Your task to perform on an android device: View the shopping cart on ebay.com. Add lg ultragear to the cart on ebay.com Image 0: 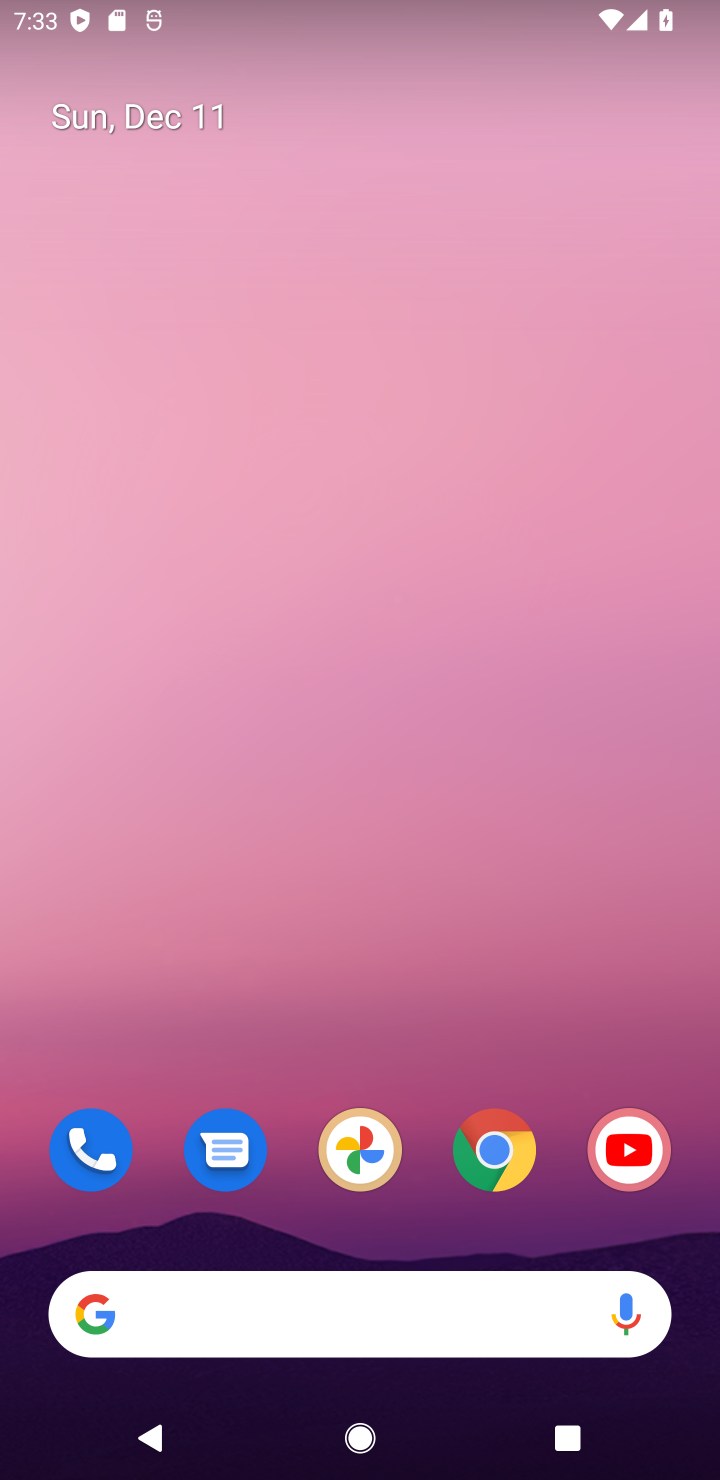
Step 0: click (489, 1158)
Your task to perform on an android device: View the shopping cart on ebay.com. Add lg ultragear to the cart on ebay.com Image 1: 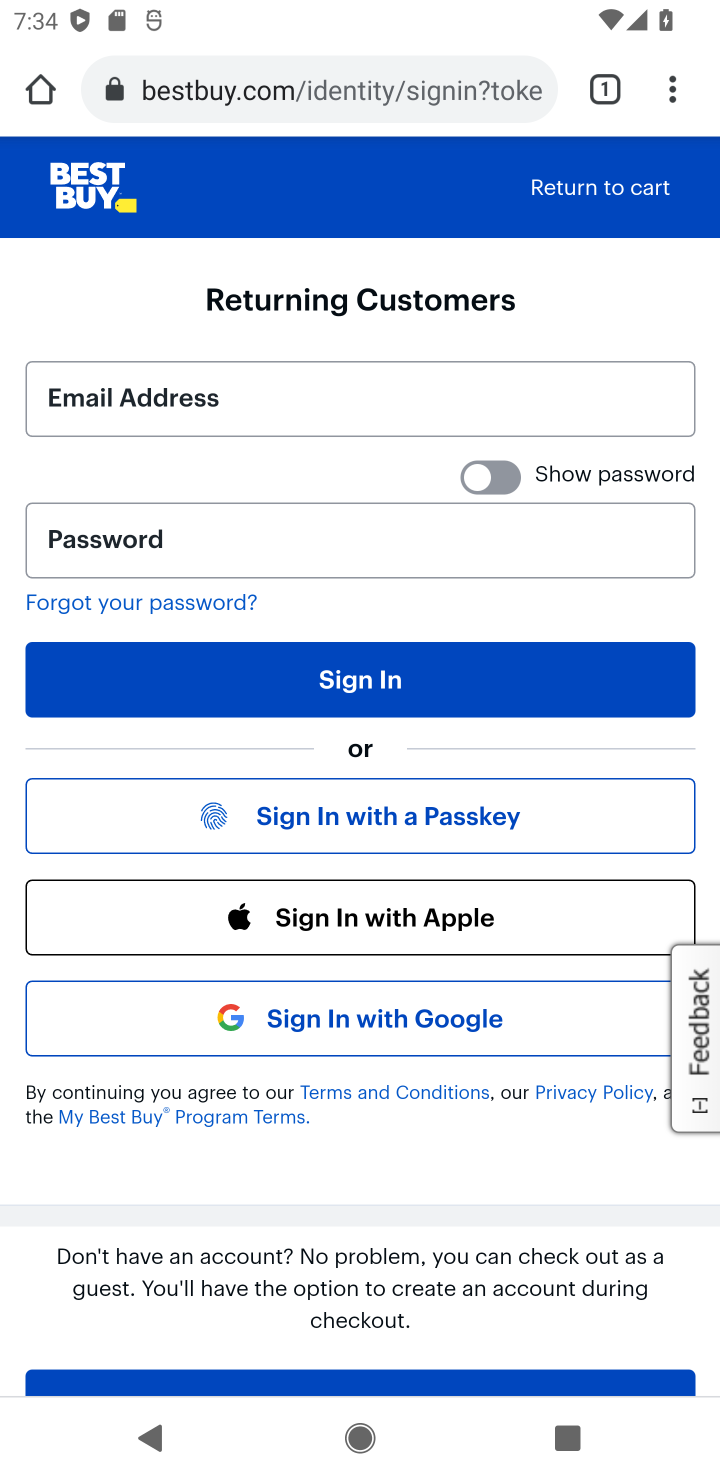
Step 1: click (347, 90)
Your task to perform on an android device: View the shopping cart on ebay.com. Add lg ultragear to the cart on ebay.com Image 2: 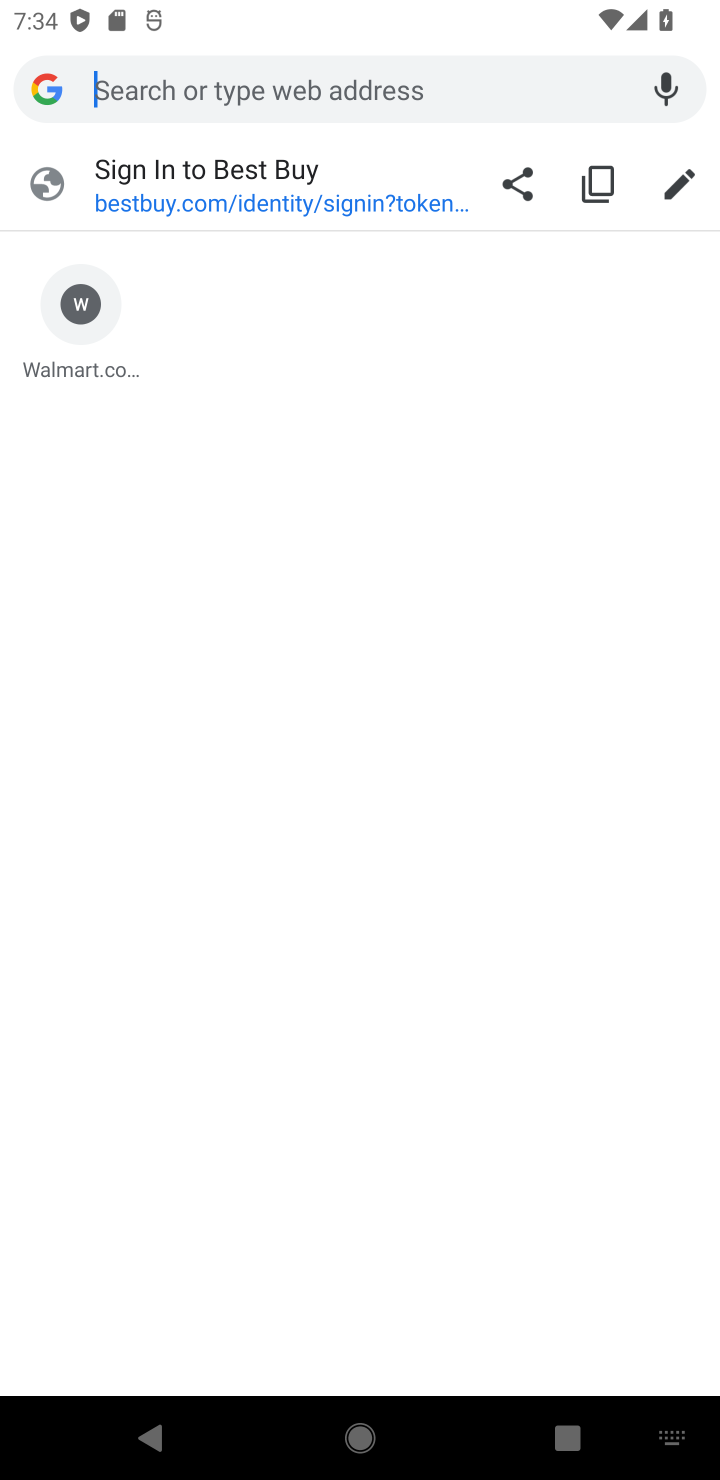
Step 2: type "ebay.com"
Your task to perform on an android device: View the shopping cart on ebay.com. Add lg ultragear to the cart on ebay.com Image 3: 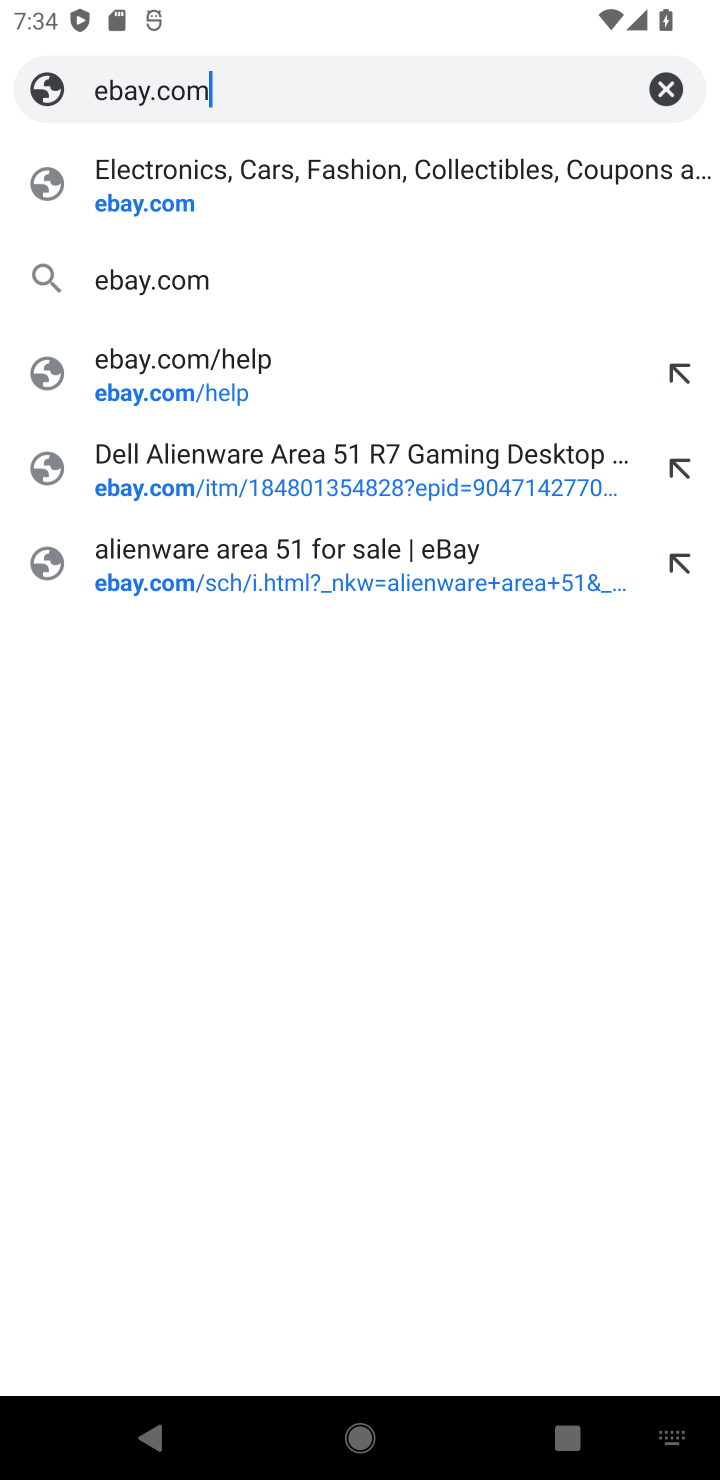
Step 3: click (191, 277)
Your task to perform on an android device: View the shopping cart on ebay.com. Add lg ultragear to the cart on ebay.com Image 4: 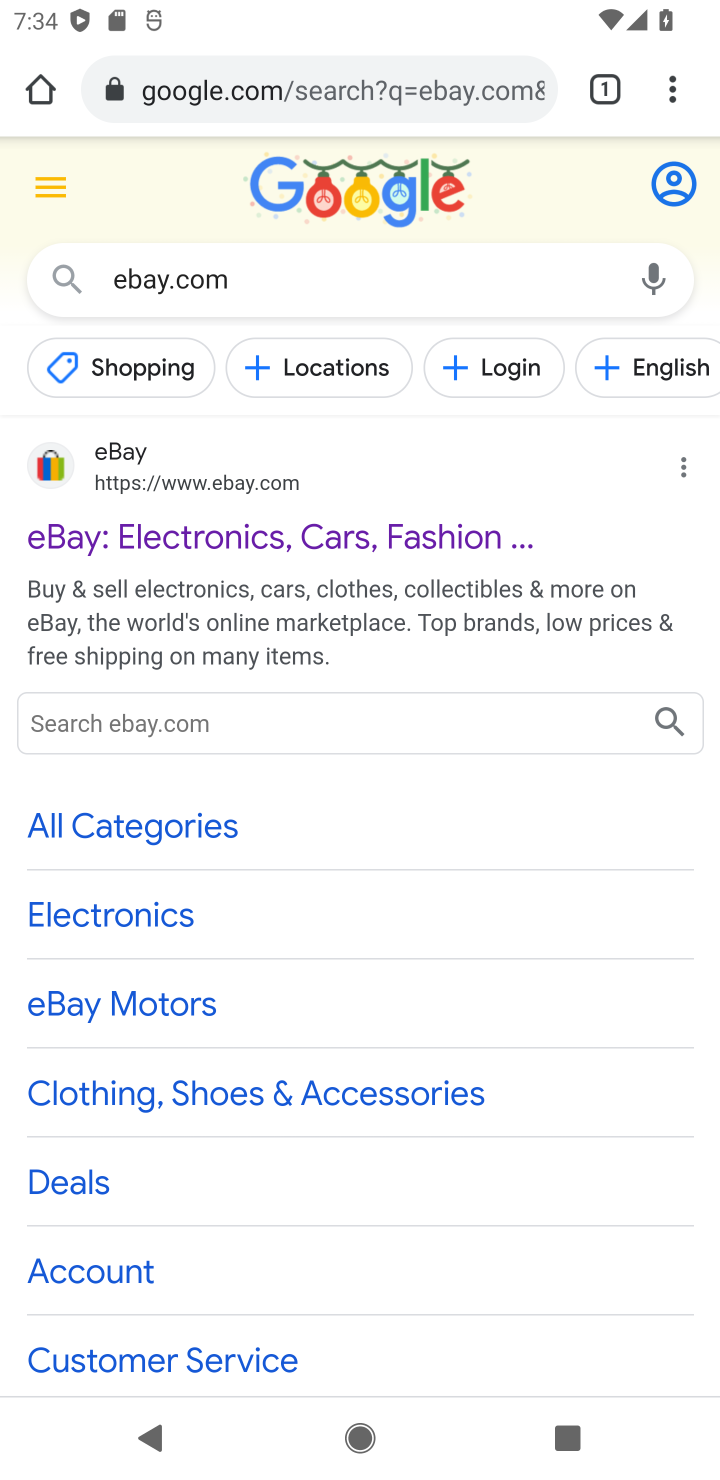
Step 4: click (172, 539)
Your task to perform on an android device: View the shopping cart on ebay.com. Add lg ultragear to the cart on ebay.com Image 5: 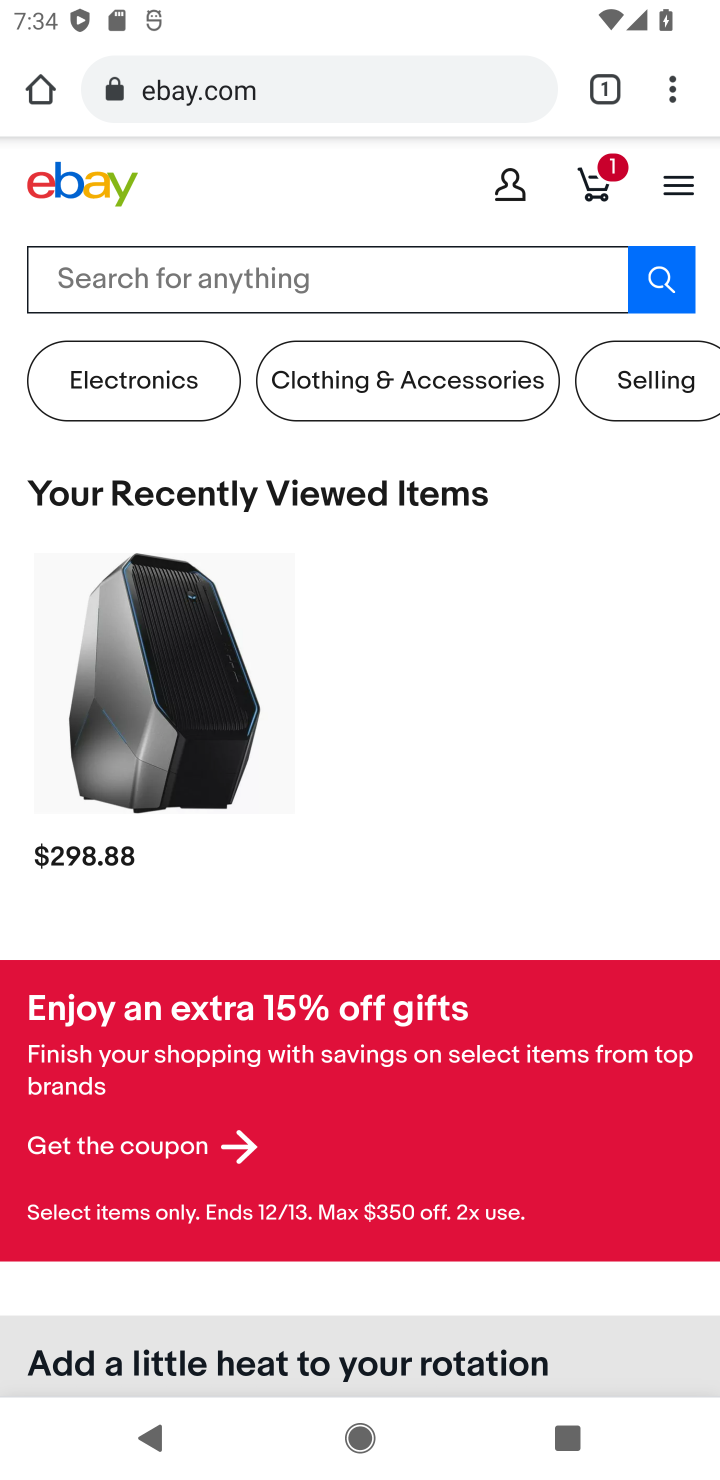
Step 5: click (590, 188)
Your task to perform on an android device: View the shopping cart on ebay.com. Add lg ultragear to the cart on ebay.com Image 6: 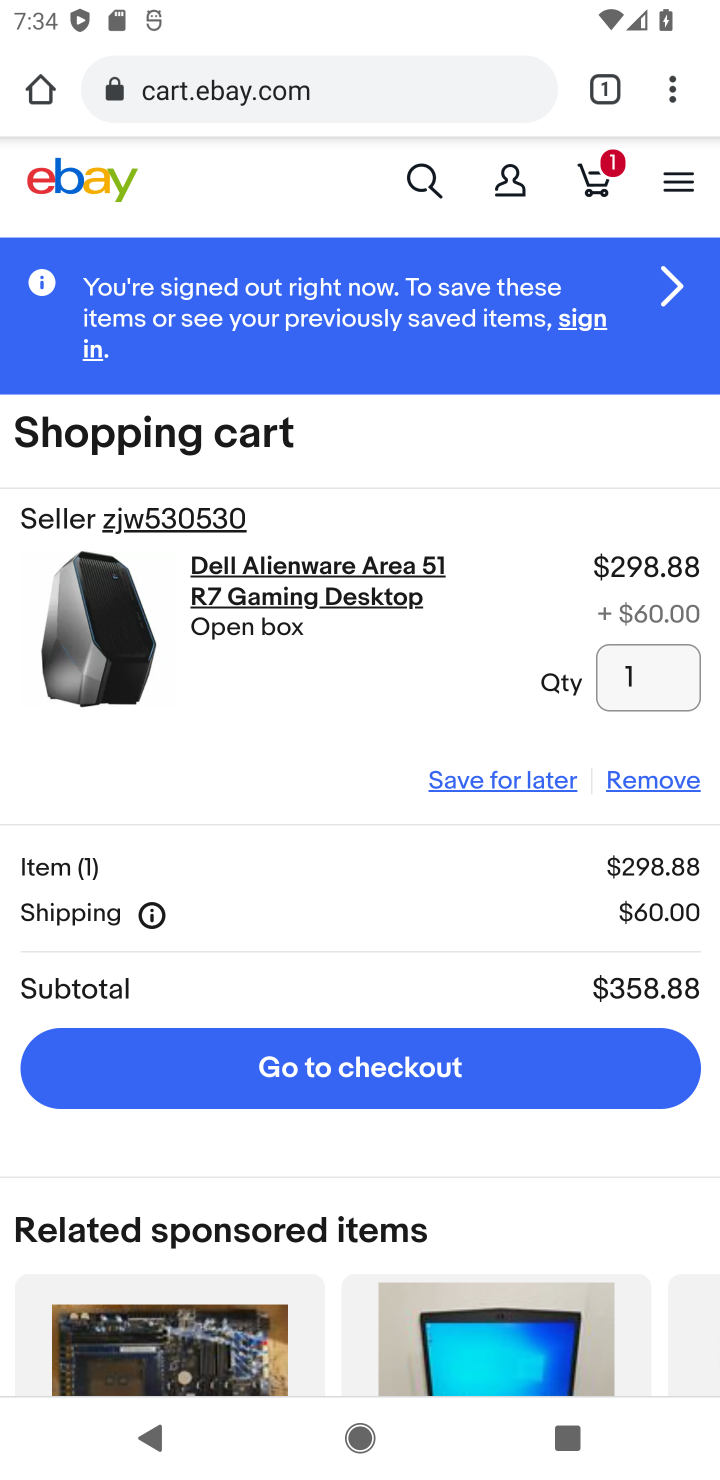
Step 6: click (417, 180)
Your task to perform on an android device: View the shopping cart on ebay.com. Add lg ultragear to the cart on ebay.com Image 7: 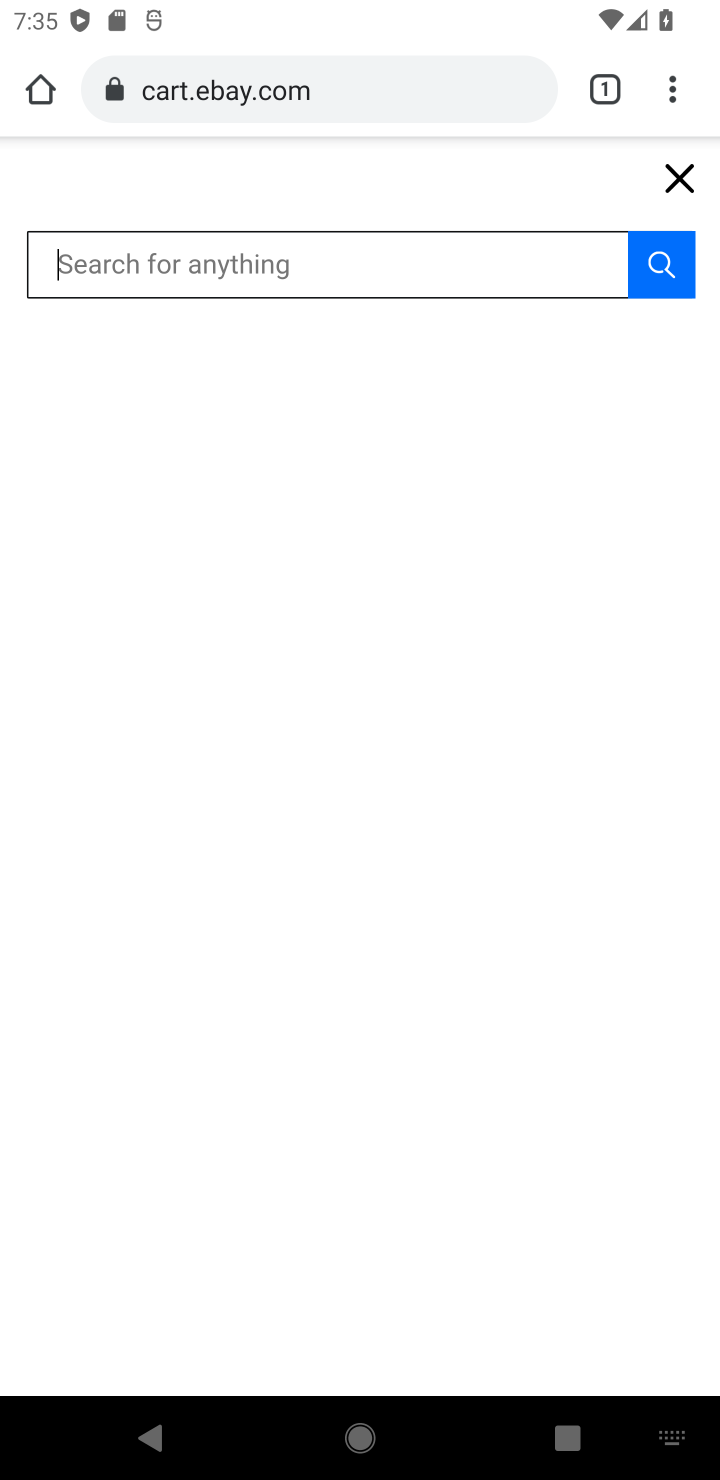
Step 7: type "lg ultragear"
Your task to perform on an android device: View the shopping cart on ebay.com. Add lg ultragear to the cart on ebay.com Image 8: 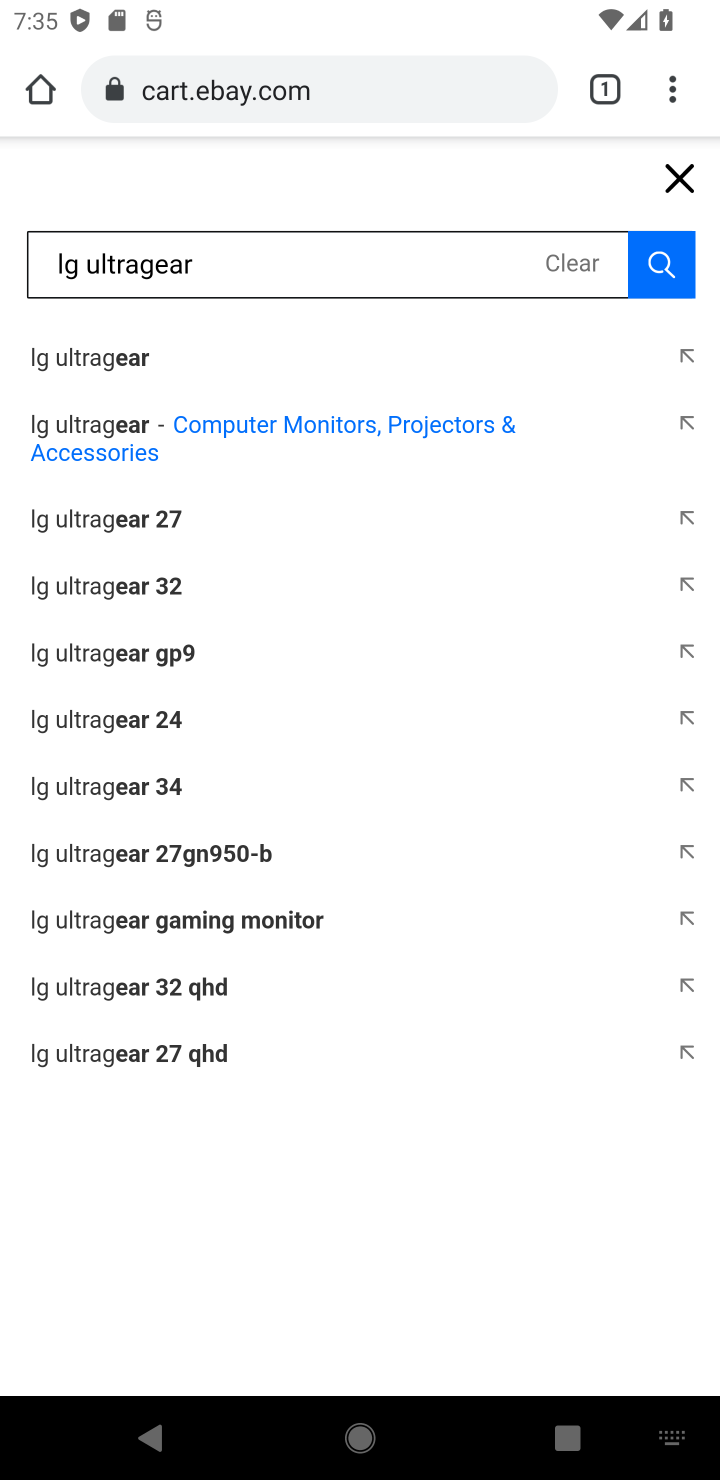
Step 8: click (95, 366)
Your task to perform on an android device: View the shopping cart on ebay.com. Add lg ultragear to the cart on ebay.com Image 9: 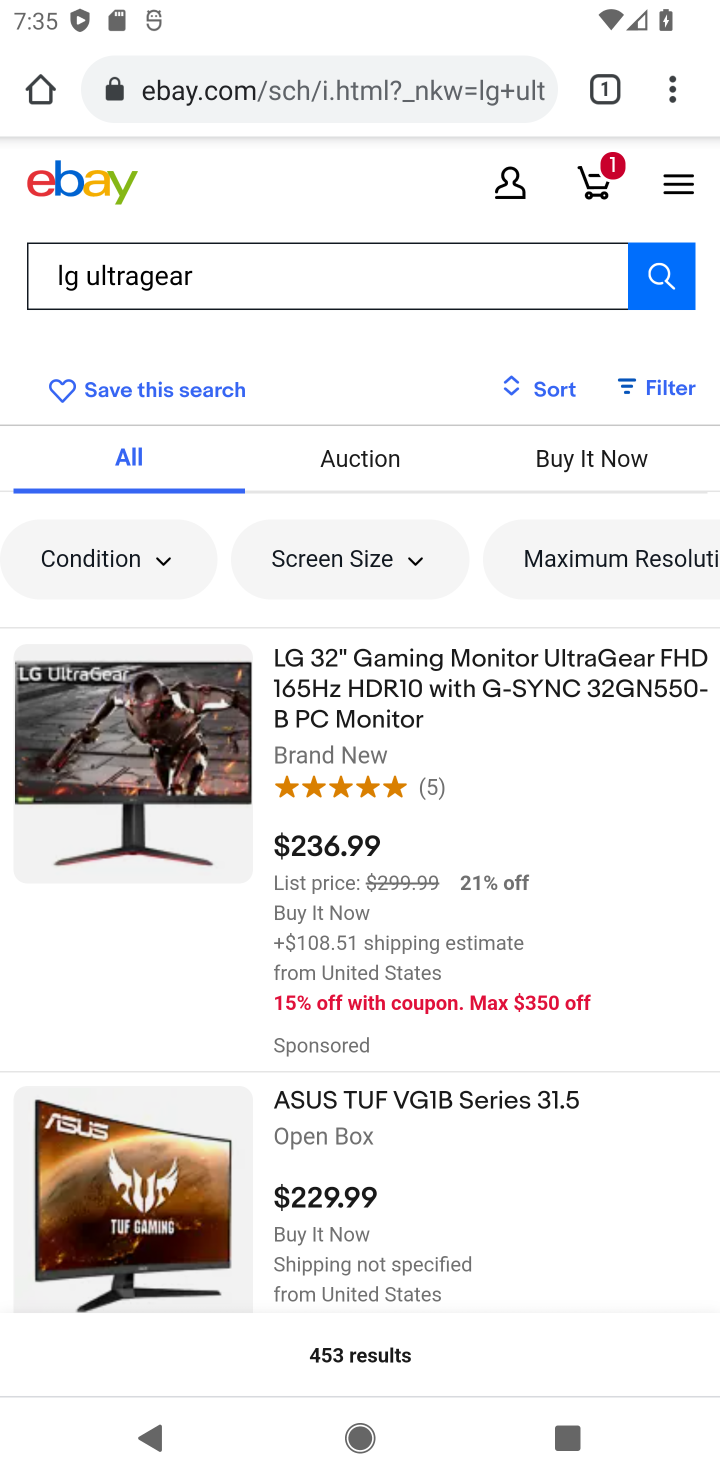
Step 9: click (398, 702)
Your task to perform on an android device: View the shopping cart on ebay.com. Add lg ultragear to the cart on ebay.com Image 10: 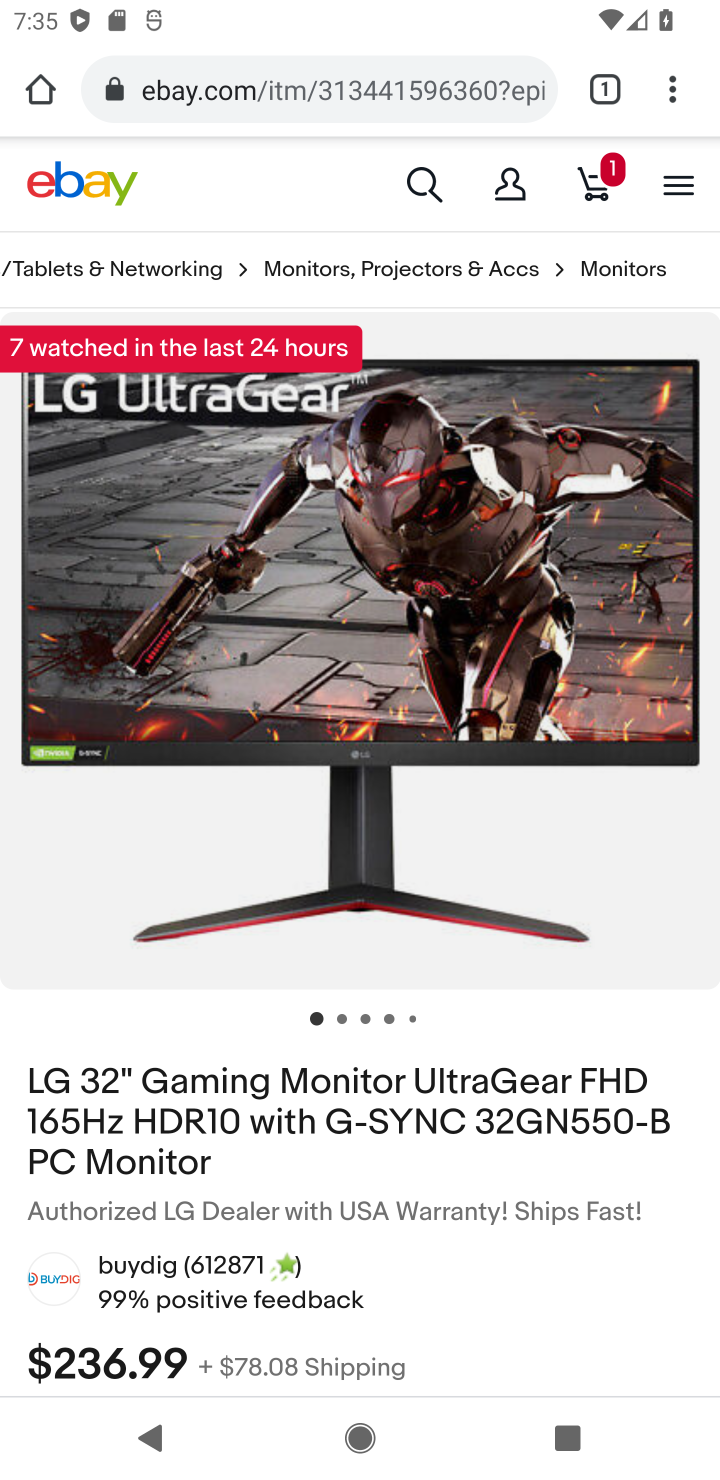
Step 10: drag from (438, 1245) to (468, 676)
Your task to perform on an android device: View the shopping cart on ebay.com. Add lg ultragear to the cart on ebay.com Image 11: 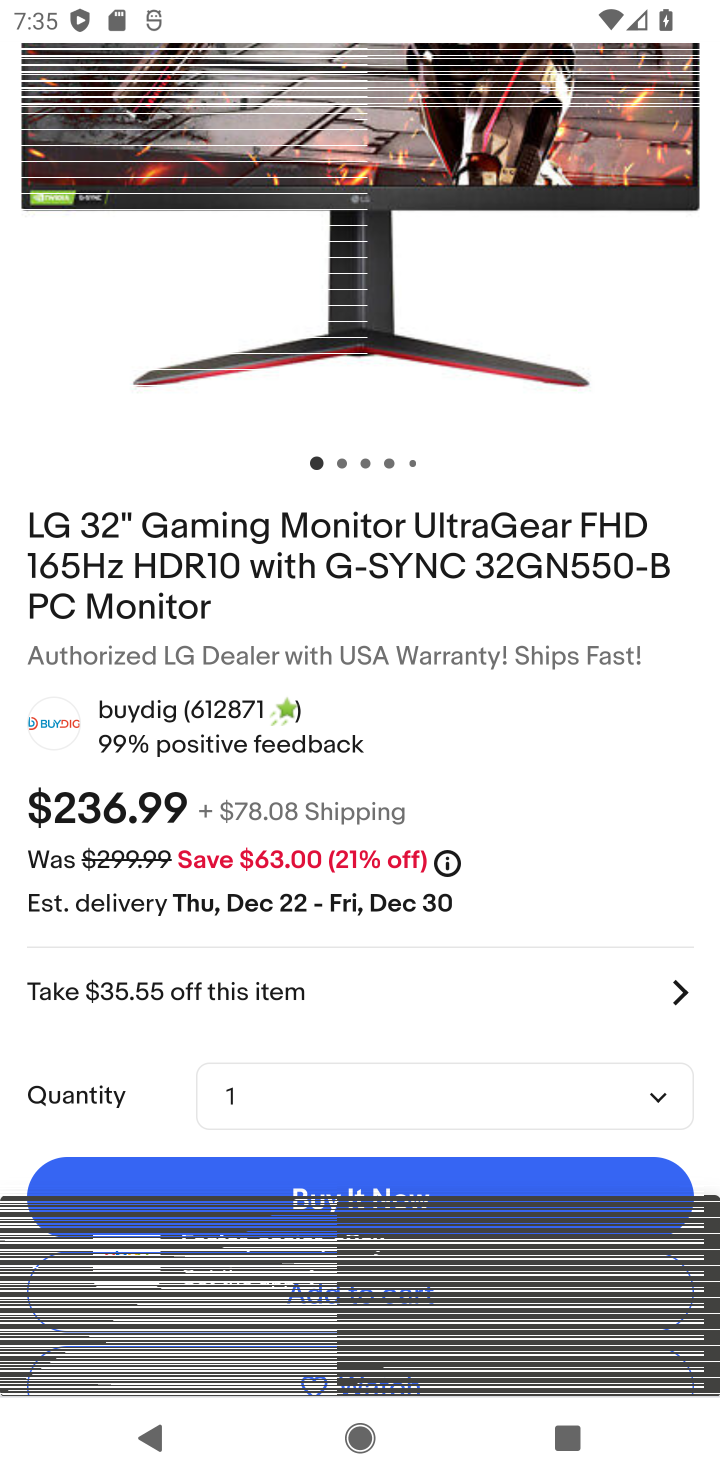
Step 11: drag from (495, 876) to (509, 527)
Your task to perform on an android device: View the shopping cart on ebay.com. Add lg ultragear to the cart on ebay.com Image 12: 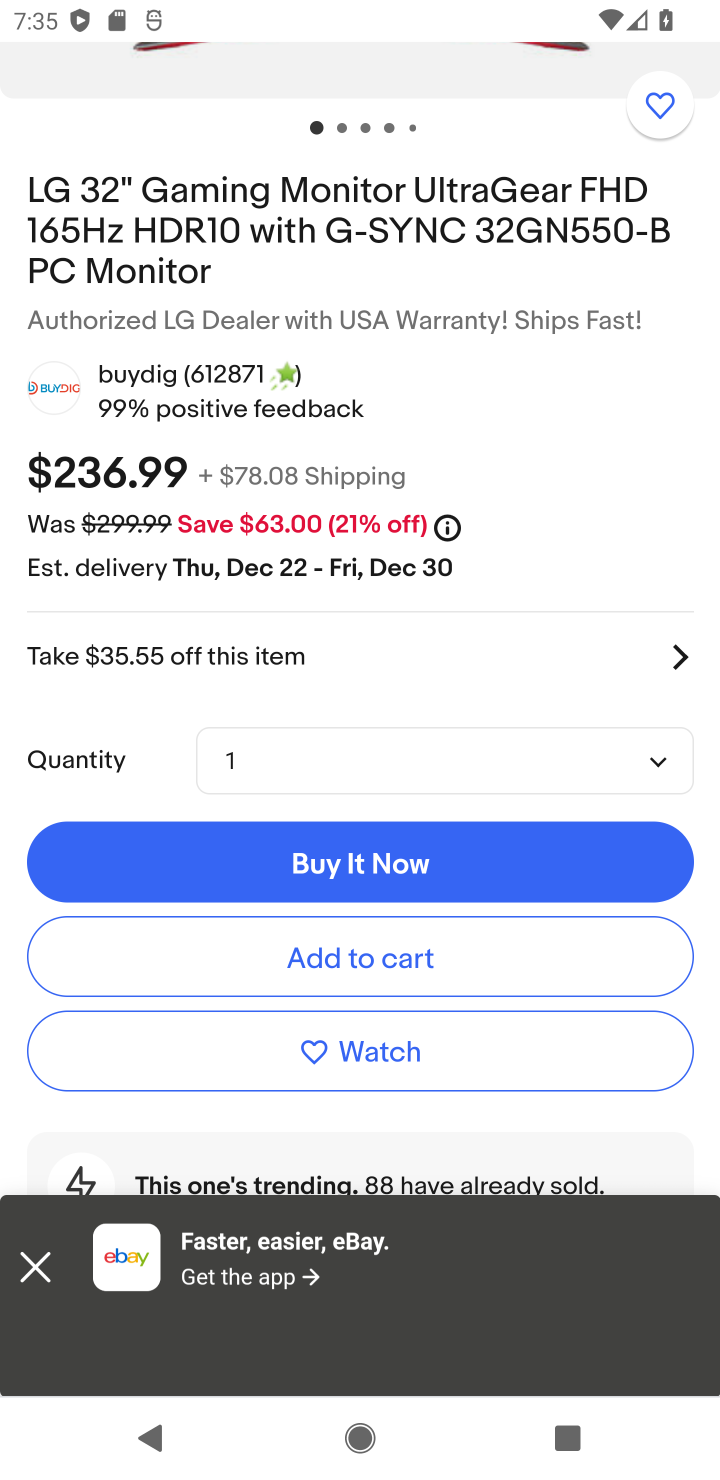
Step 12: click (416, 966)
Your task to perform on an android device: View the shopping cart on ebay.com. Add lg ultragear to the cart on ebay.com Image 13: 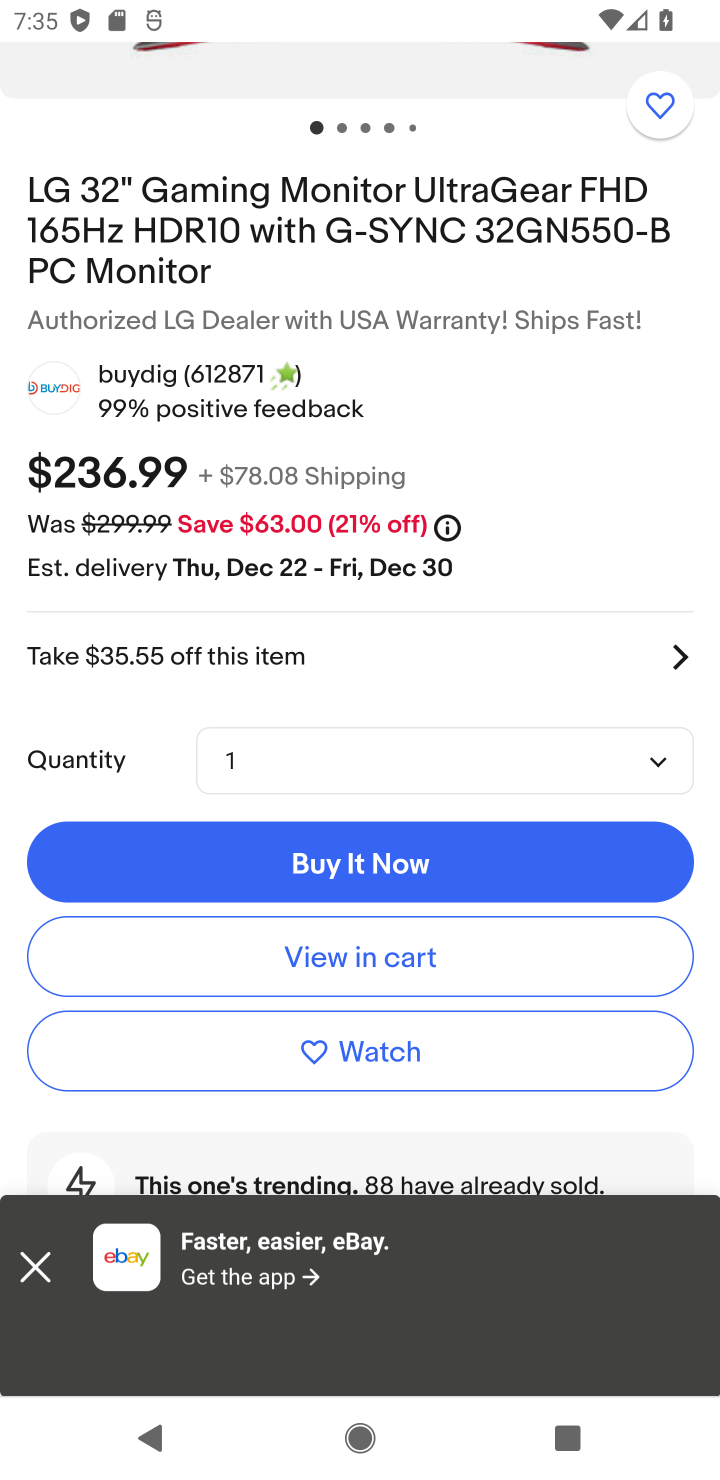
Step 13: task complete